Your task to perform on an android device: delete the emails in spam in the gmail app Image 0: 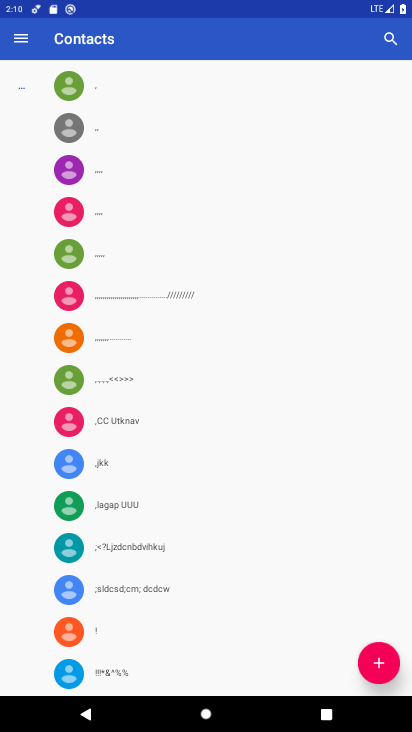
Step 0: press home button
Your task to perform on an android device: delete the emails in spam in the gmail app Image 1: 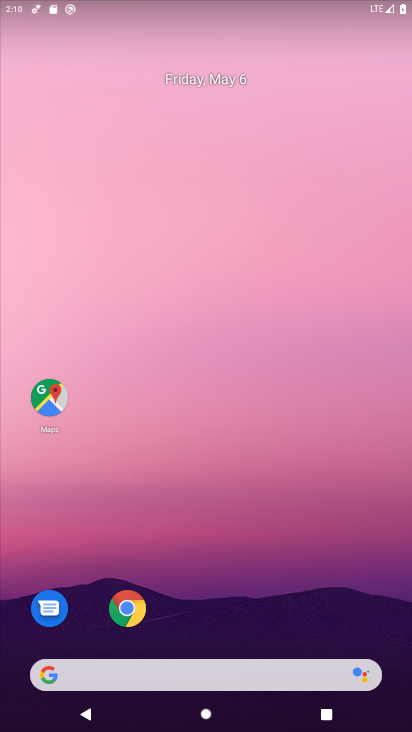
Step 1: drag from (224, 628) to (232, 60)
Your task to perform on an android device: delete the emails in spam in the gmail app Image 2: 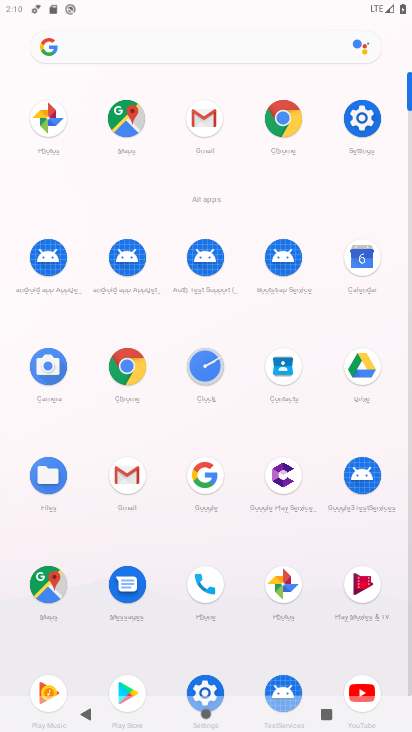
Step 2: click (135, 485)
Your task to perform on an android device: delete the emails in spam in the gmail app Image 3: 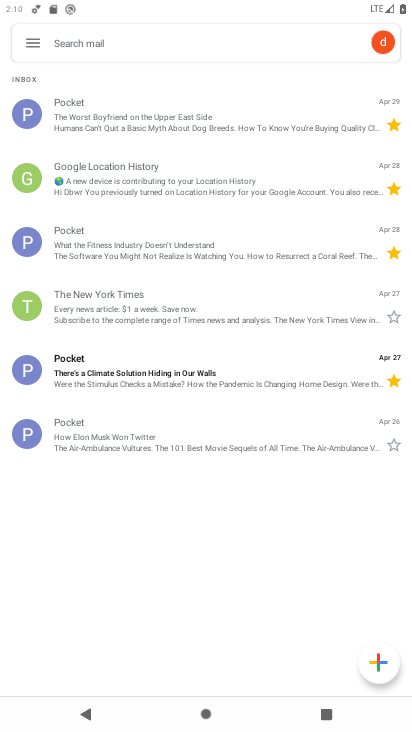
Step 3: click (25, 44)
Your task to perform on an android device: delete the emails in spam in the gmail app Image 4: 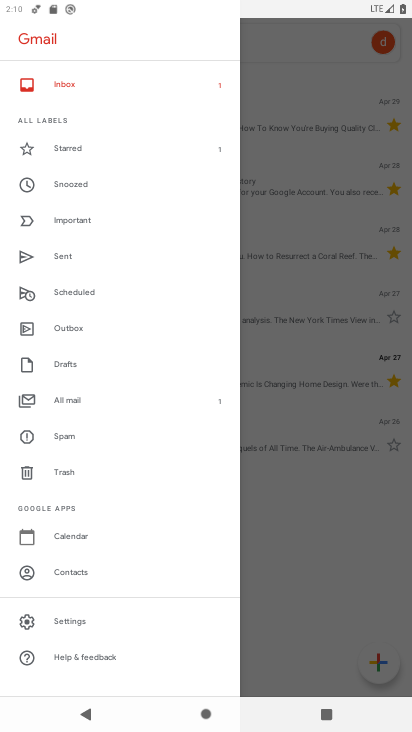
Step 4: click (91, 440)
Your task to perform on an android device: delete the emails in spam in the gmail app Image 5: 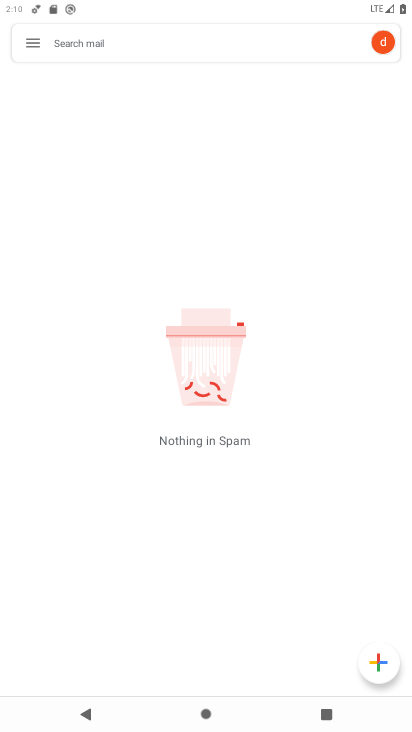
Step 5: task complete